Your task to perform on an android device: Open the map Image 0: 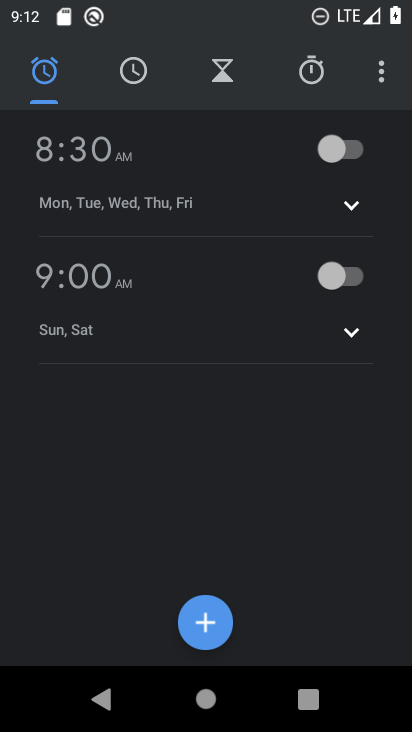
Step 0: press home button
Your task to perform on an android device: Open the map Image 1: 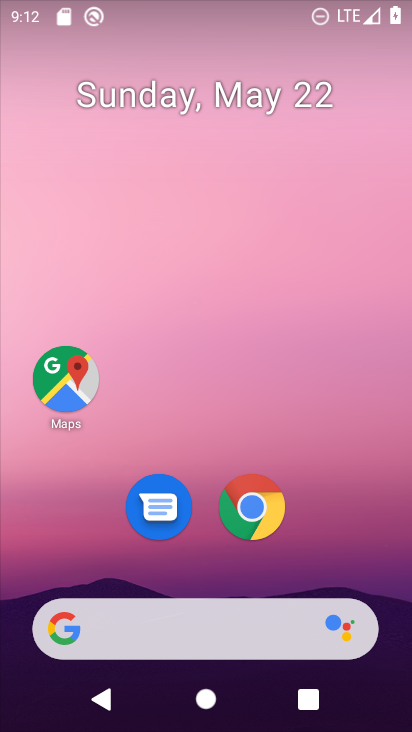
Step 1: click (48, 374)
Your task to perform on an android device: Open the map Image 2: 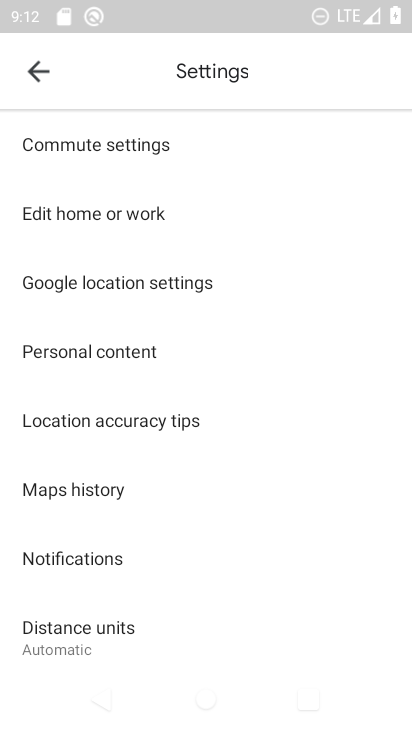
Step 2: click (42, 67)
Your task to perform on an android device: Open the map Image 3: 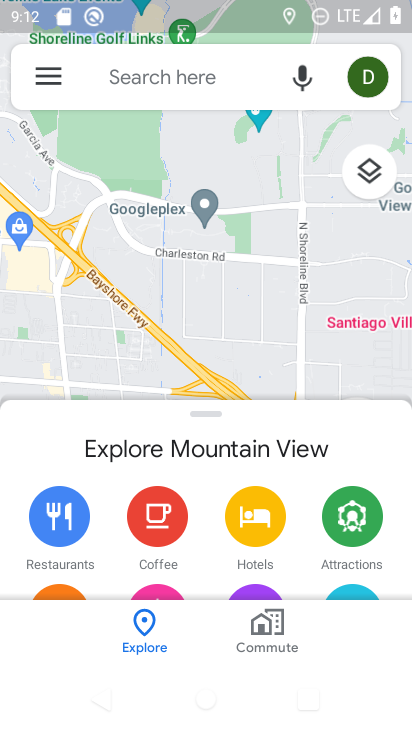
Step 3: task complete